Your task to perform on an android device: all mails in gmail Image 0: 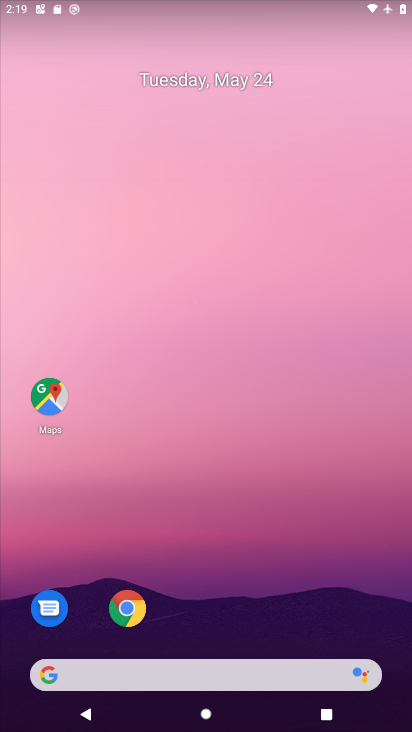
Step 0: drag from (282, 630) to (247, 215)
Your task to perform on an android device: all mails in gmail Image 1: 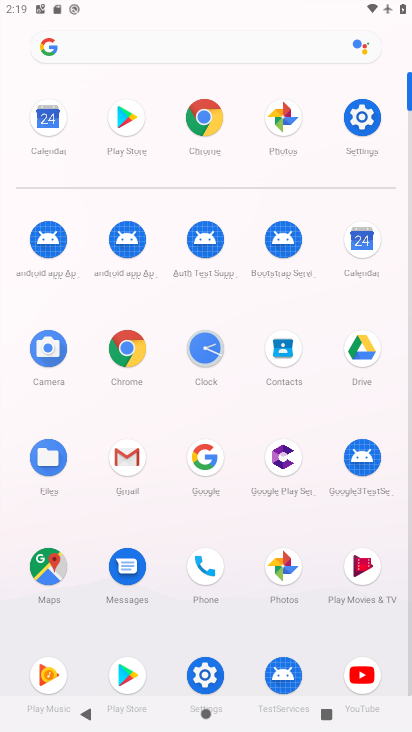
Step 1: click (146, 472)
Your task to perform on an android device: all mails in gmail Image 2: 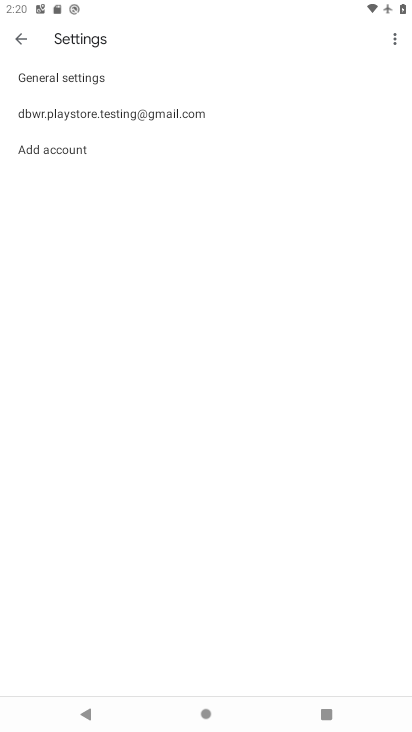
Step 2: task complete